Your task to perform on an android device: turn on translation in the chrome app Image 0: 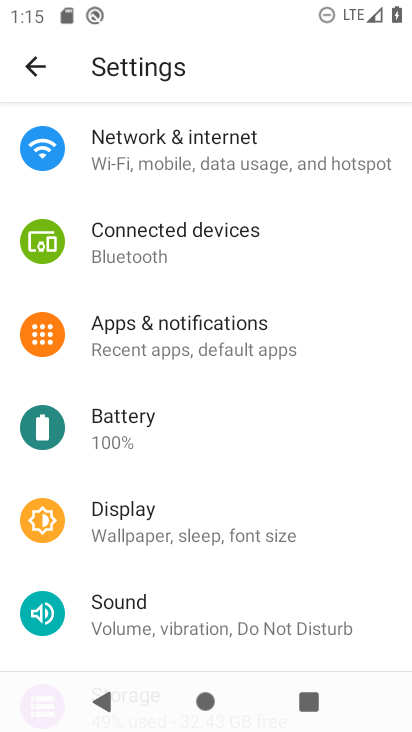
Step 0: press home button
Your task to perform on an android device: turn on translation in the chrome app Image 1: 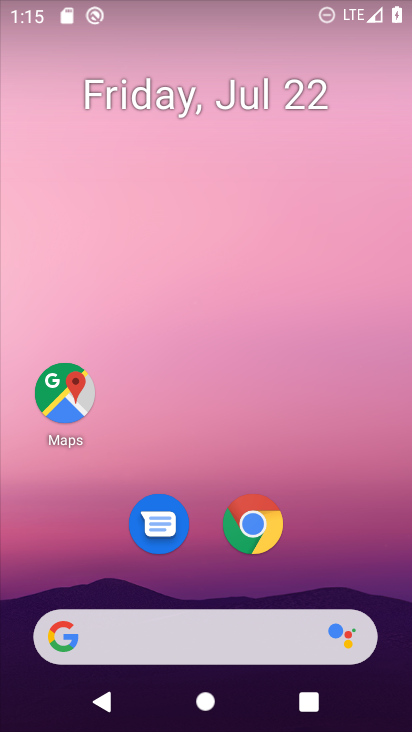
Step 1: click (259, 531)
Your task to perform on an android device: turn on translation in the chrome app Image 2: 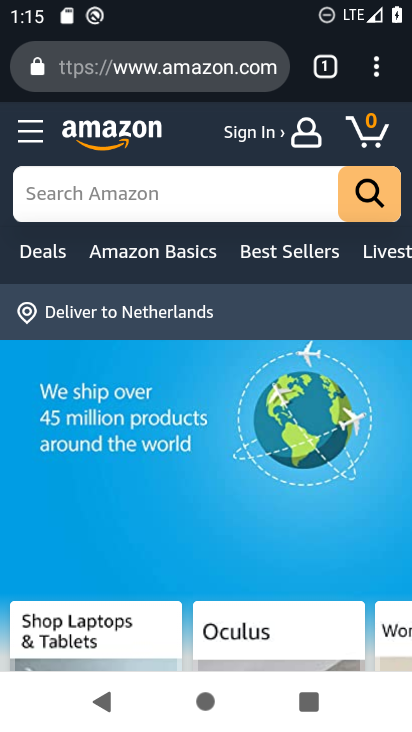
Step 2: press back button
Your task to perform on an android device: turn on translation in the chrome app Image 3: 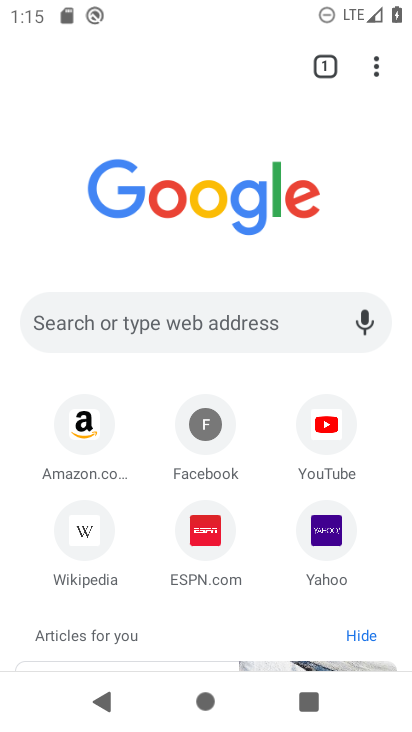
Step 3: click (381, 57)
Your task to perform on an android device: turn on translation in the chrome app Image 4: 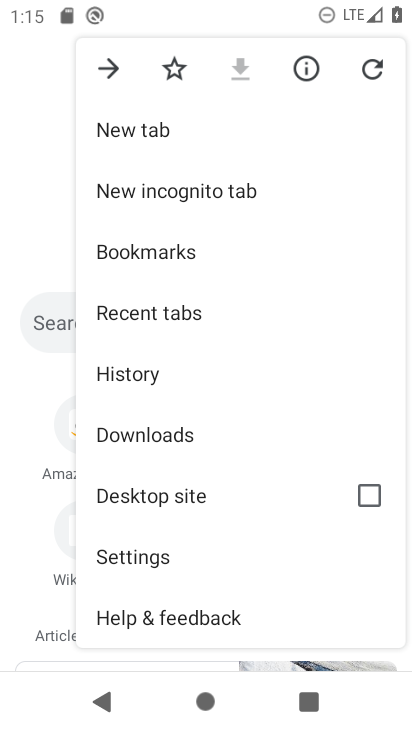
Step 4: click (149, 548)
Your task to perform on an android device: turn on translation in the chrome app Image 5: 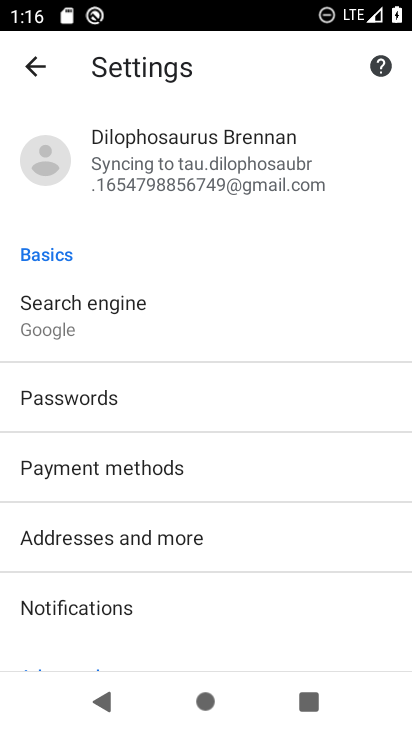
Step 5: drag from (222, 533) to (237, 141)
Your task to perform on an android device: turn on translation in the chrome app Image 6: 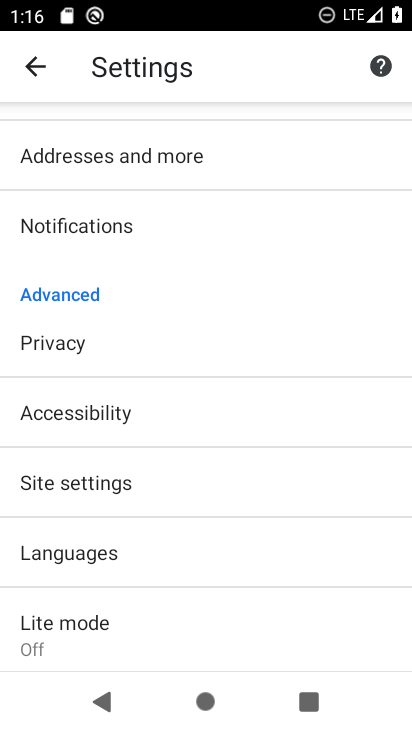
Step 6: click (112, 541)
Your task to perform on an android device: turn on translation in the chrome app Image 7: 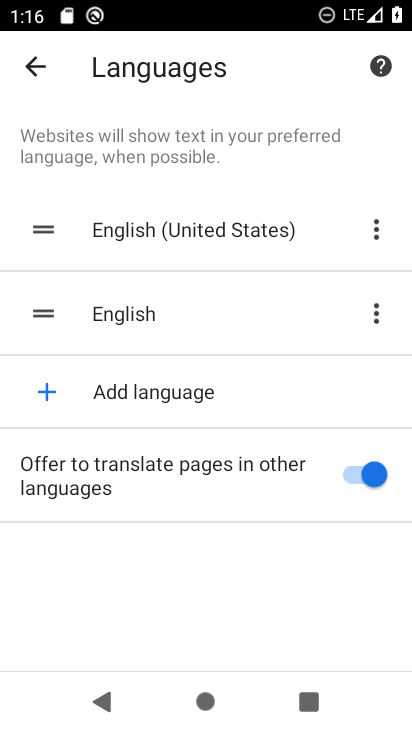
Step 7: task complete